Your task to perform on an android device: Clear all items from cart on target.com. Search for "jbl flip 4" on target.com, select the first entry, and add it to the cart. Image 0: 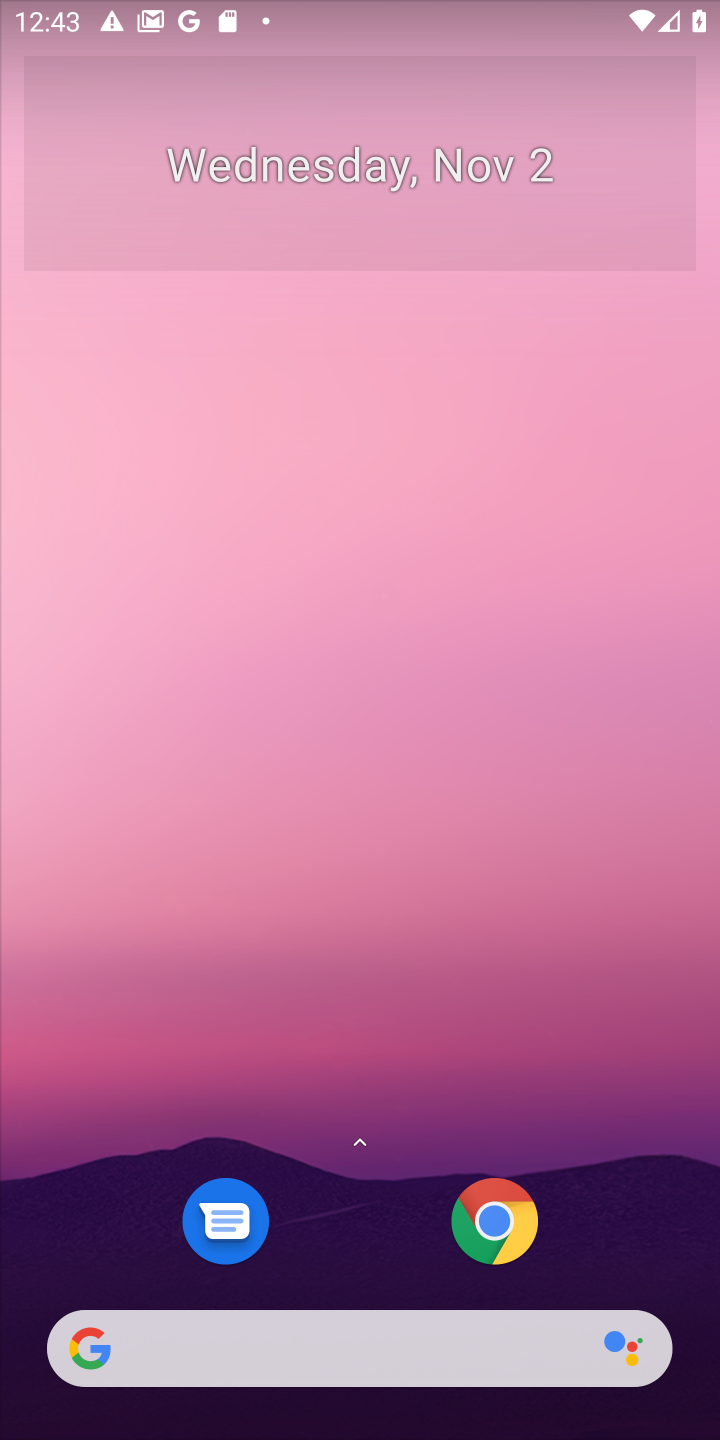
Step 0: click (242, 1355)
Your task to perform on an android device: Clear all items from cart on target.com. Search for "jbl flip 4" on target.com, select the first entry, and add it to the cart. Image 1: 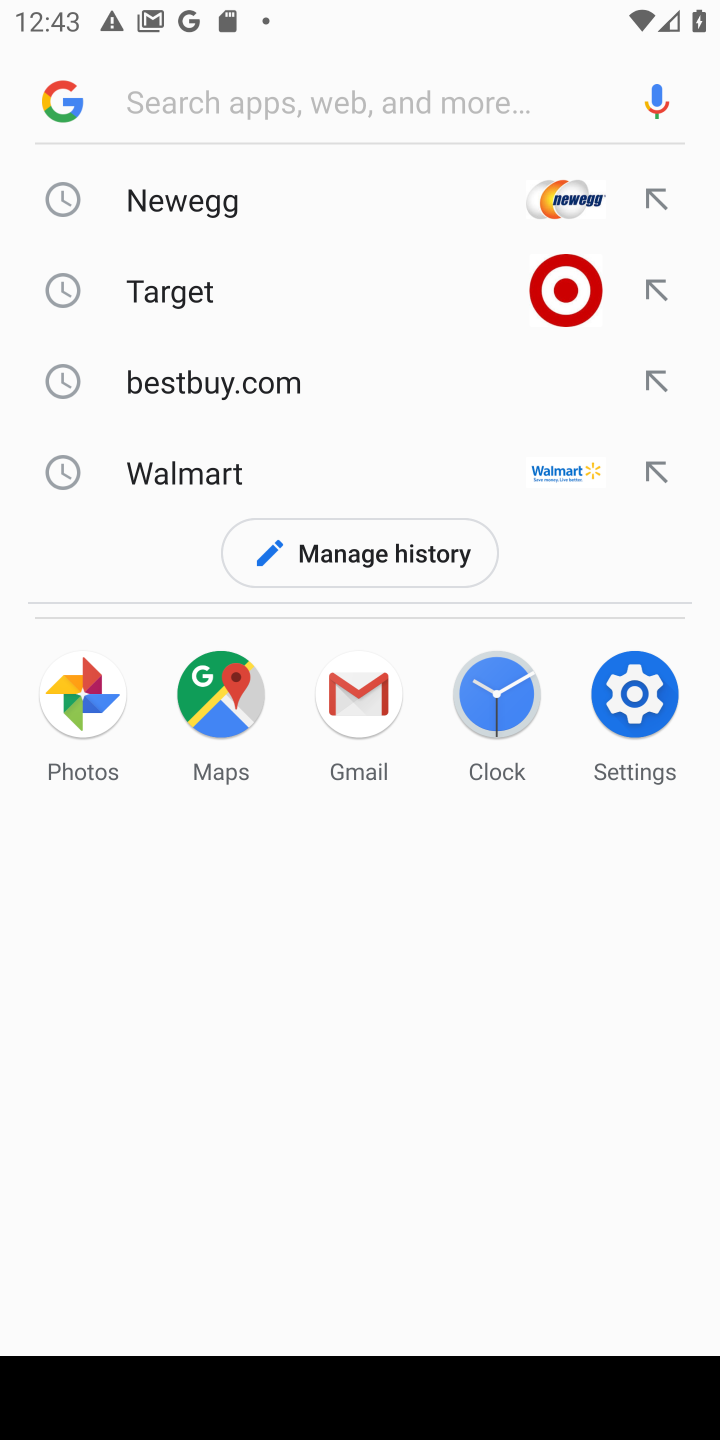
Step 1: click (512, 321)
Your task to perform on an android device: Clear all items from cart on target.com. Search for "jbl flip 4" on target.com, select the first entry, and add it to the cart. Image 2: 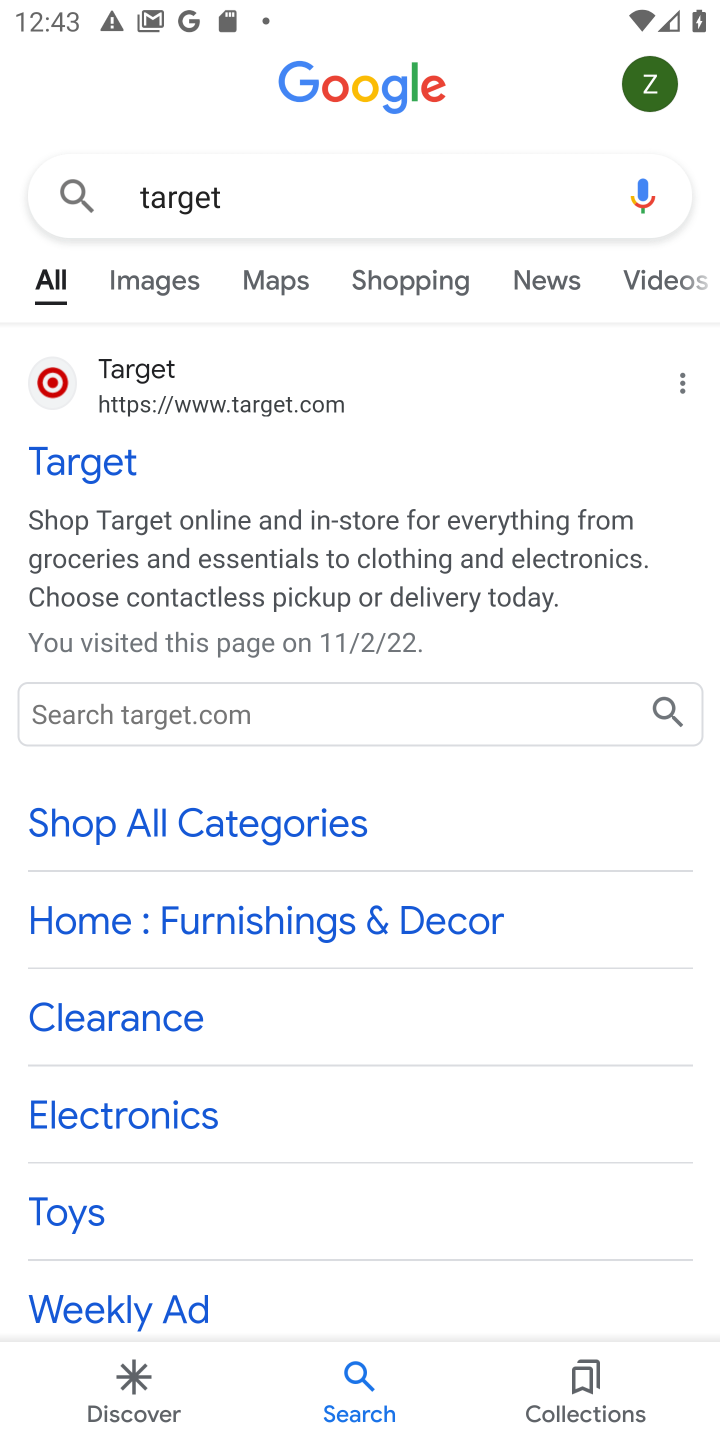
Step 2: click (49, 465)
Your task to perform on an android device: Clear all items from cart on target.com. Search for "jbl flip 4" on target.com, select the first entry, and add it to the cart. Image 3: 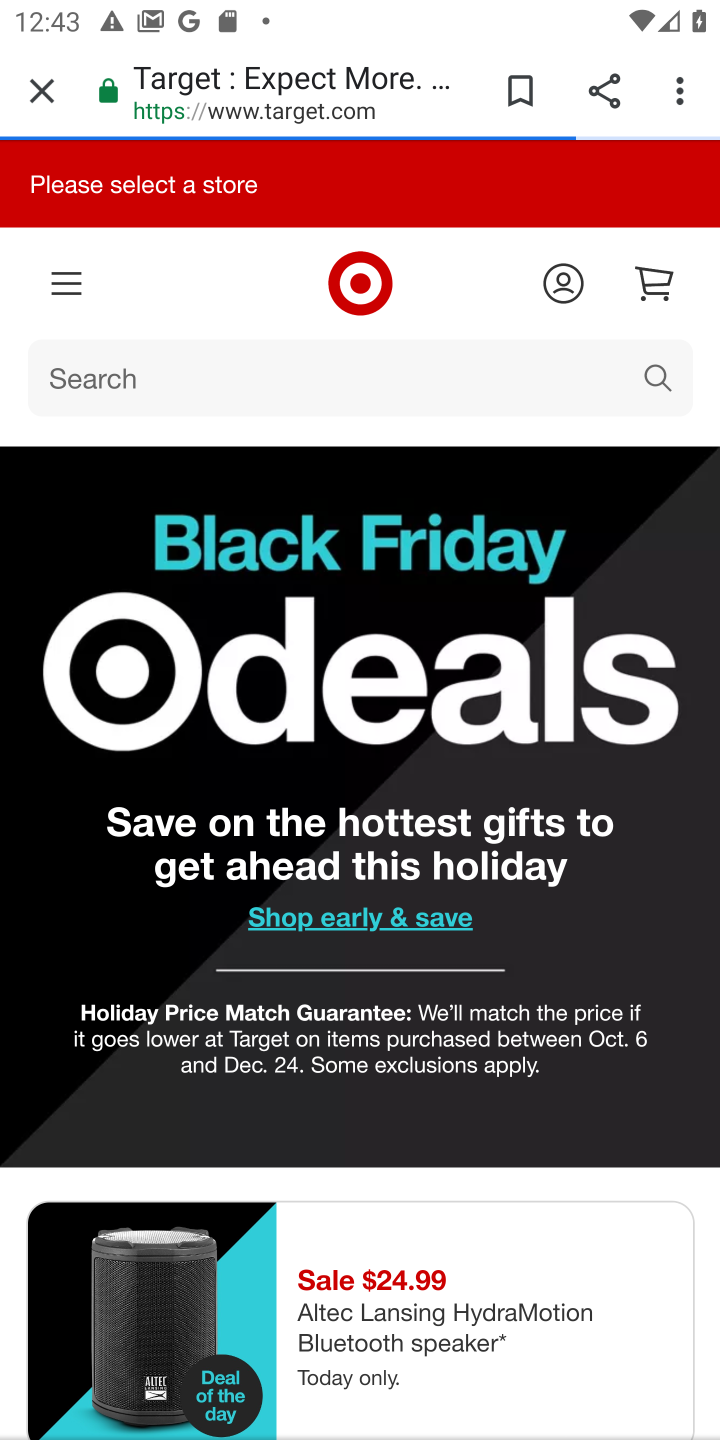
Step 3: click (525, 389)
Your task to perform on an android device: Clear all items from cart on target.com. Search for "jbl flip 4" on target.com, select the first entry, and add it to the cart. Image 4: 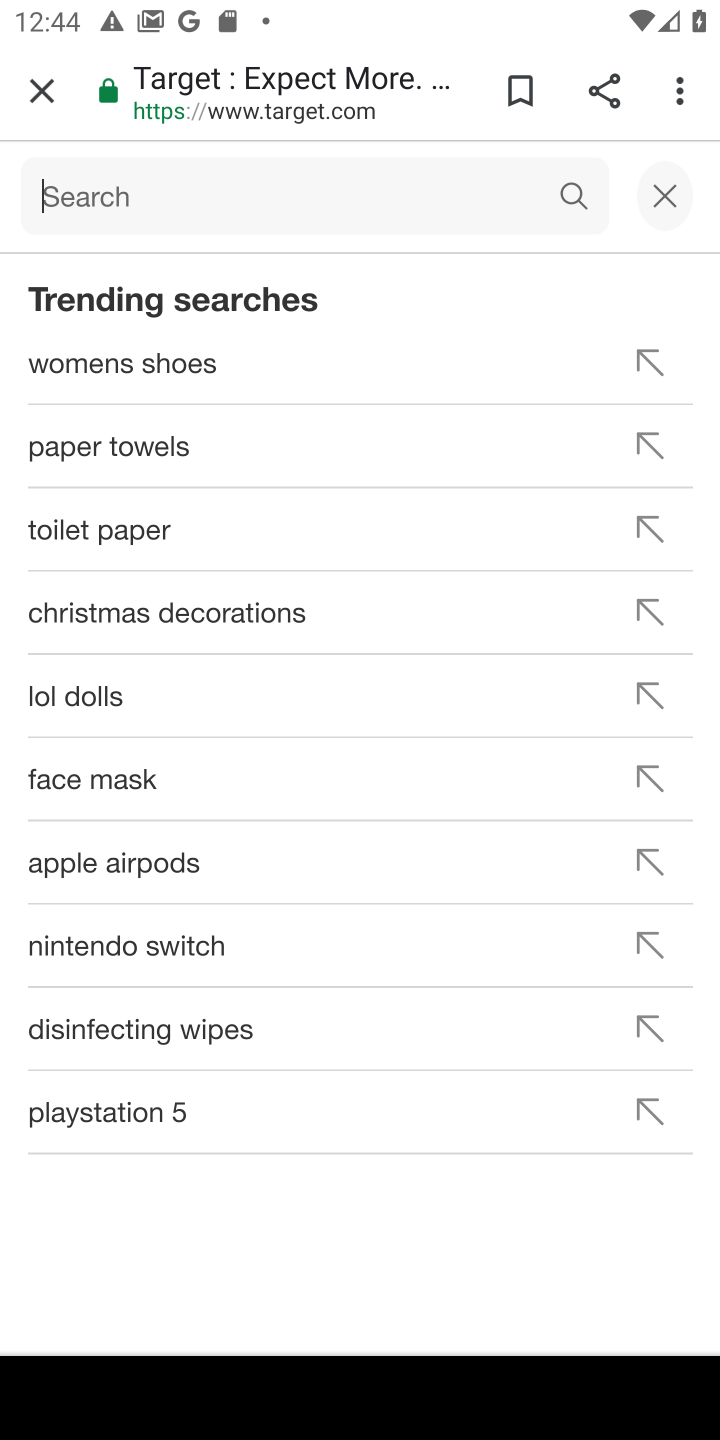
Step 4: type "jbl flip 4"
Your task to perform on an android device: Clear all items from cart on target.com. Search for "jbl flip 4" on target.com, select the first entry, and add it to the cart. Image 5: 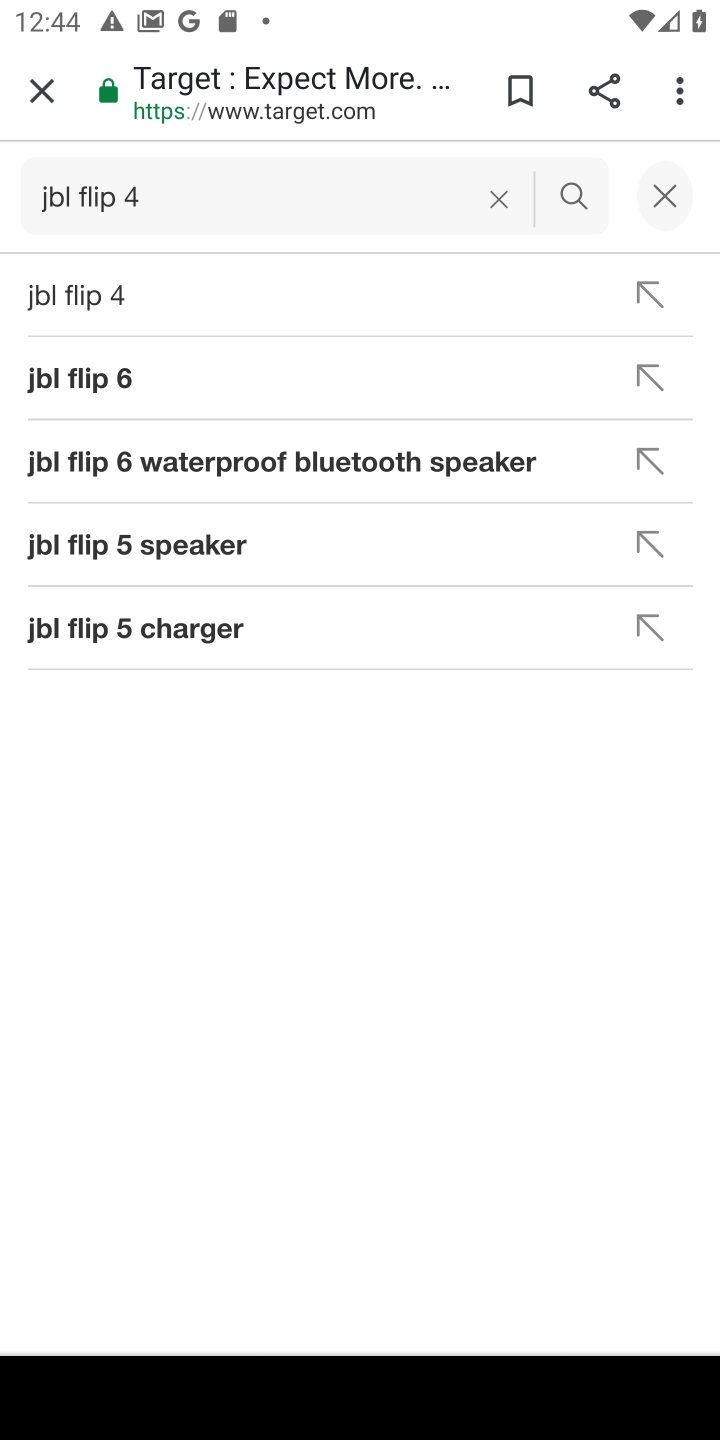
Step 5: click (208, 310)
Your task to perform on an android device: Clear all items from cart on target.com. Search for "jbl flip 4" on target.com, select the first entry, and add it to the cart. Image 6: 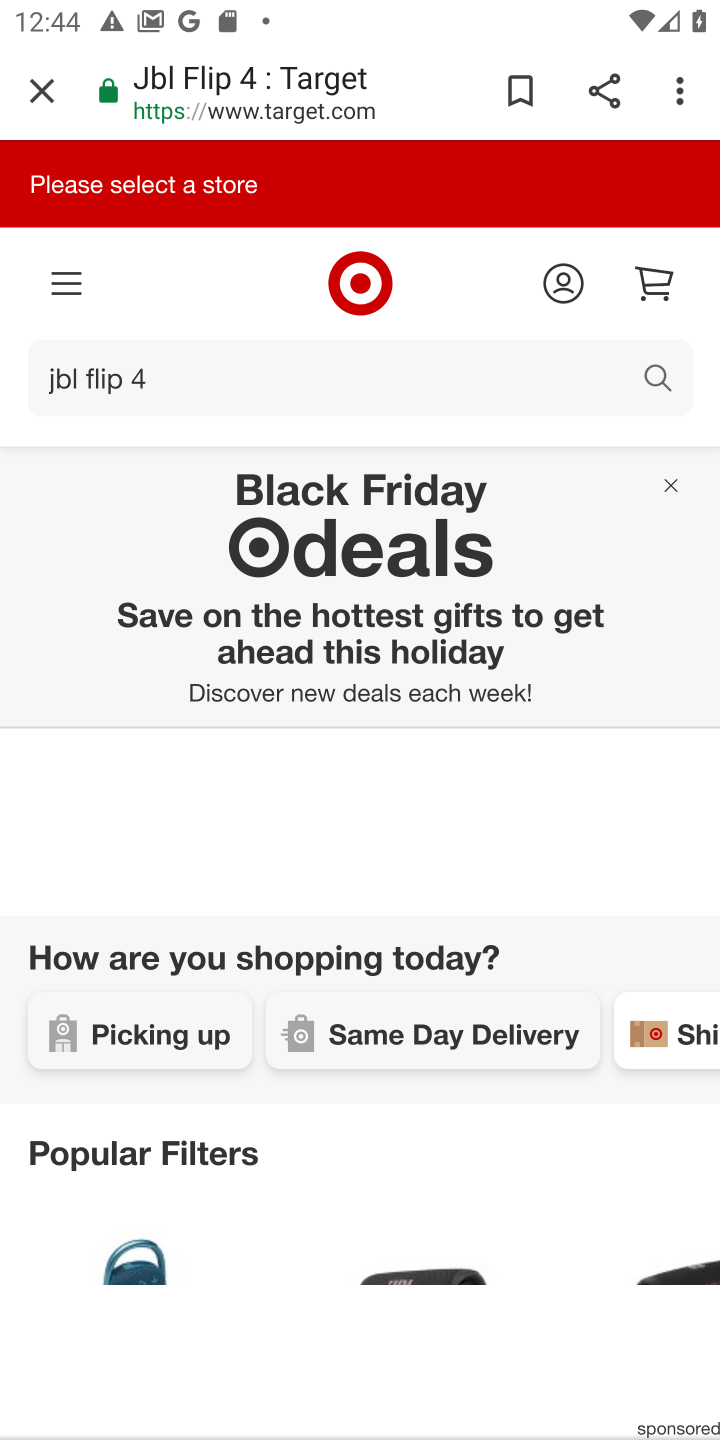
Step 6: drag from (479, 1129) to (447, 433)
Your task to perform on an android device: Clear all items from cart on target.com. Search for "jbl flip 4" on target.com, select the first entry, and add it to the cart. Image 7: 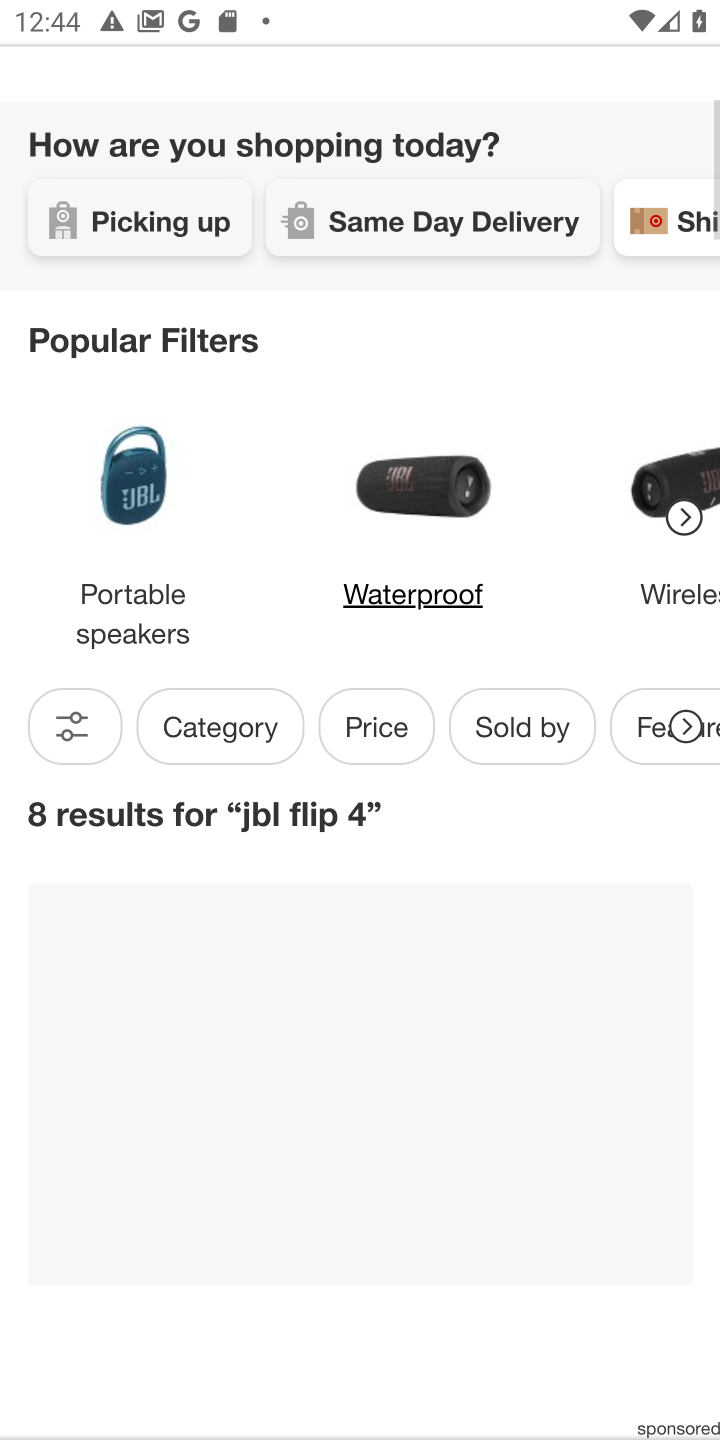
Step 7: click (160, 650)
Your task to perform on an android device: Clear all items from cart on target.com. Search for "jbl flip 4" on target.com, select the first entry, and add it to the cart. Image 8: 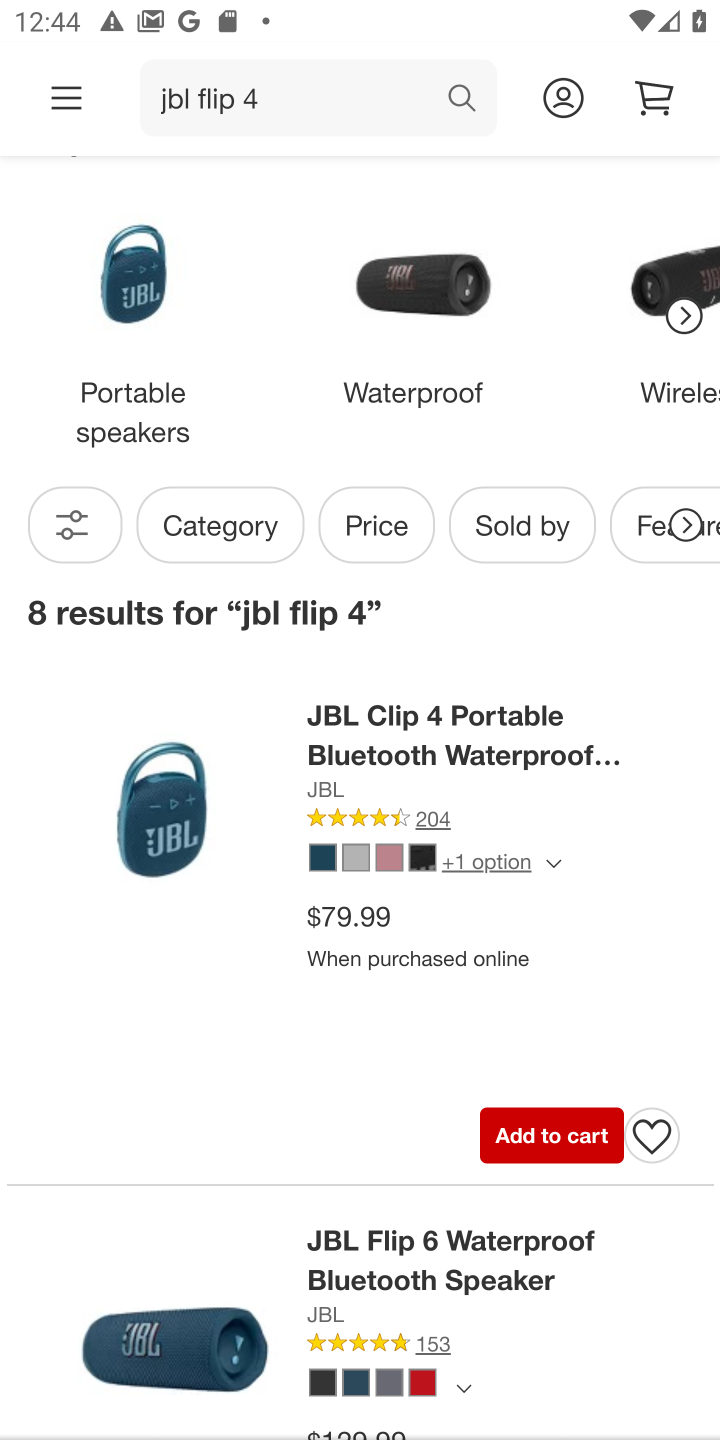
Step 8: click (582, 1146)
Your task to perform on an android device: Clear all items from cart on target.com. Search for "jbl flip 4" on target.com, select the first entry, and add it to the cart. Image 9: 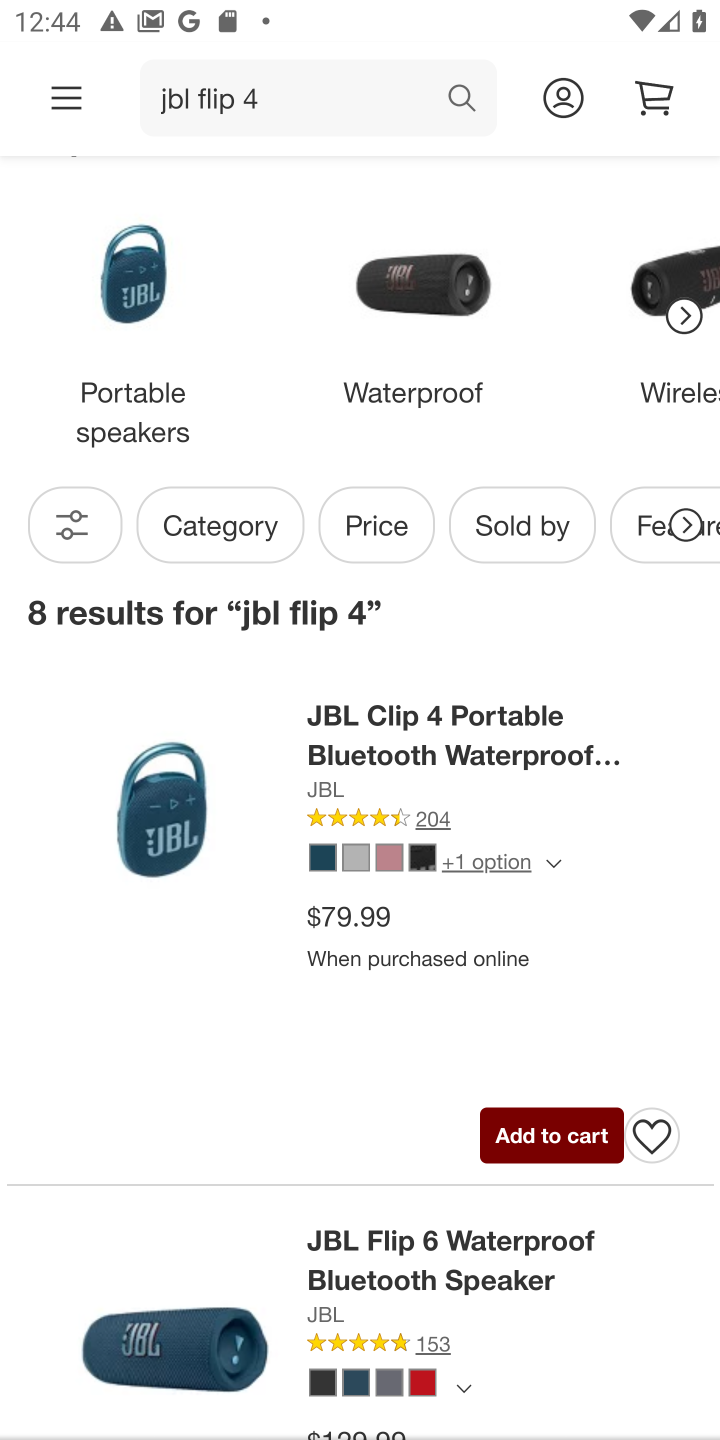
Step 9: task complete